Your task to perform on an android device: Open settings Image 0: 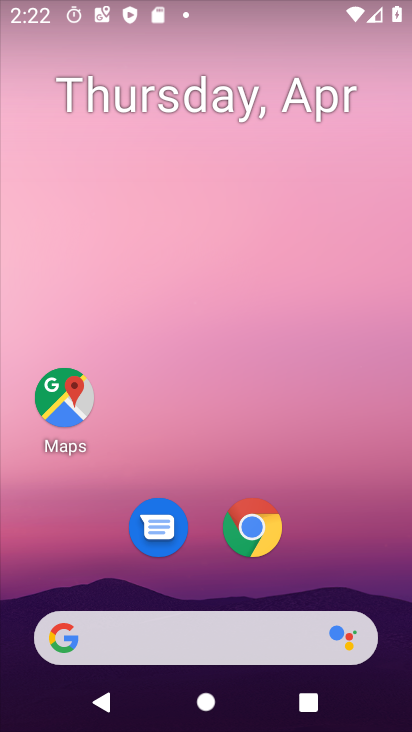
Step 0: drag from (363, 596) to (292, 116)
Your task to perform on an android device: Open settings Image 1: 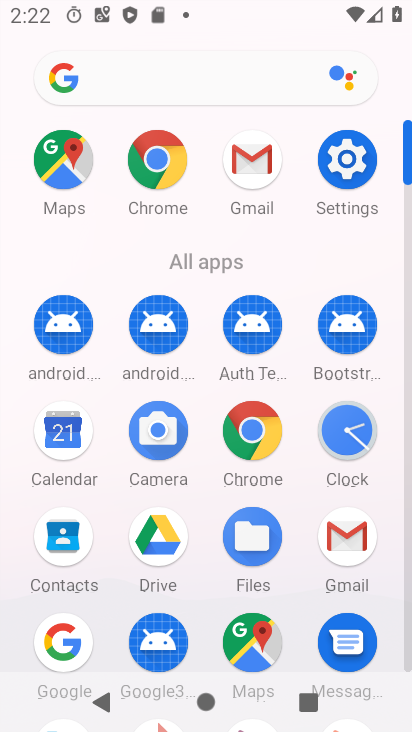
Step 1: click (352, 160)
Your task to perform on an android device: Open settings Image 2: 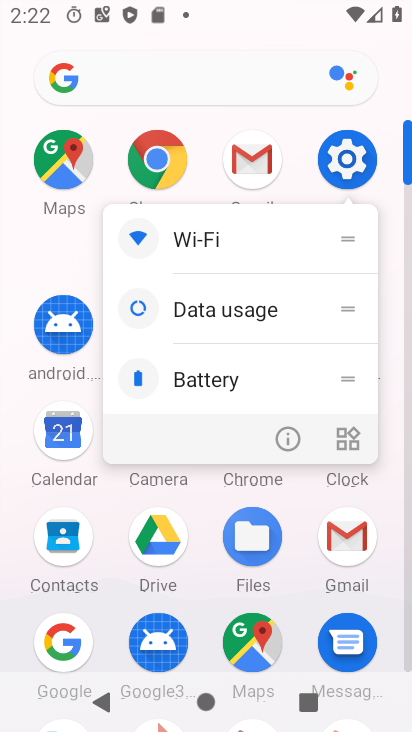
Step 2: click (351, 160)
Your task to perform on an android device: Open settings Image 3: 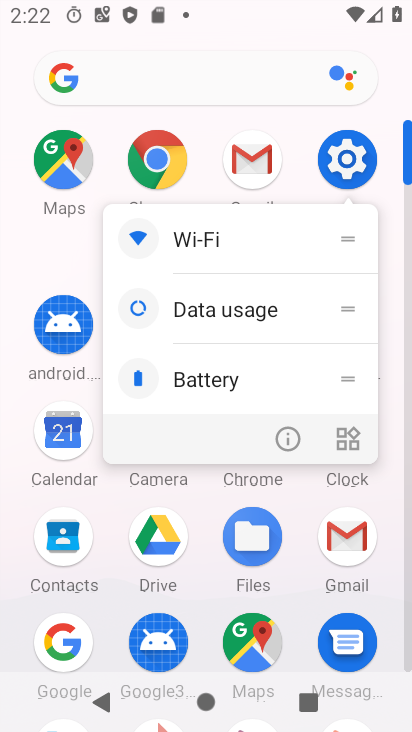
Step 3: drag from (301, 279) to (301, 199)
Your task to perform on an android device: Open settings Image 4: 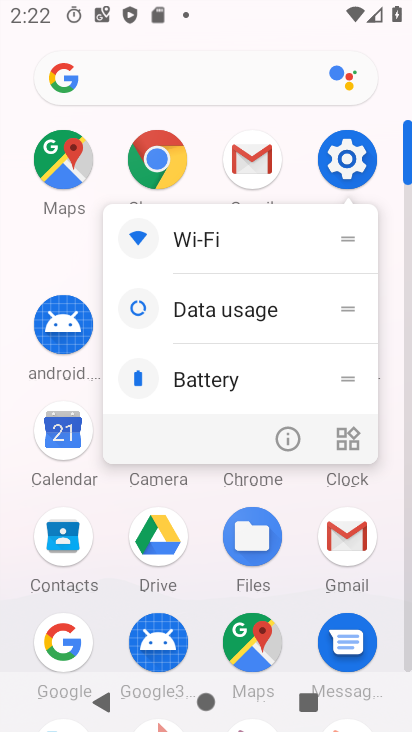
Step 4: click (335, 161)
Your task to perform on an android device: Open settings Image 5: 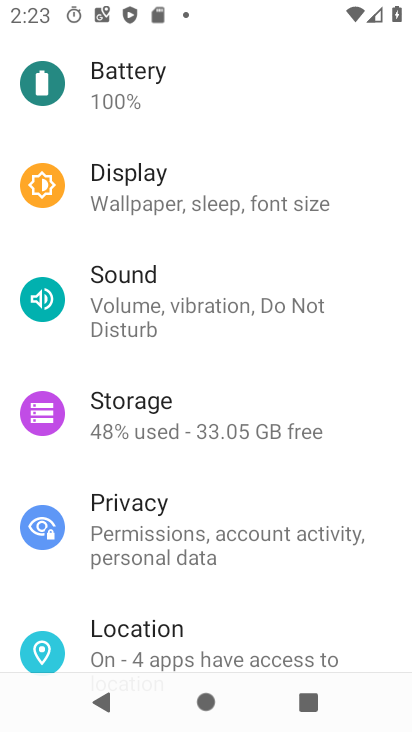
Step 5: task complete